Your task to perform on an android device: move an email to a new category in the gmail app Image 0: 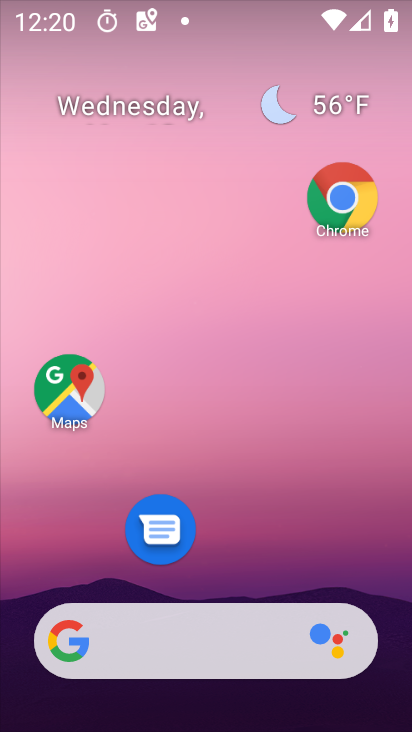
Step 0: drag from (278, 565) to (240, 265)
Your task to perform on an android device: move an email to a new category in the gmail app Image 1: 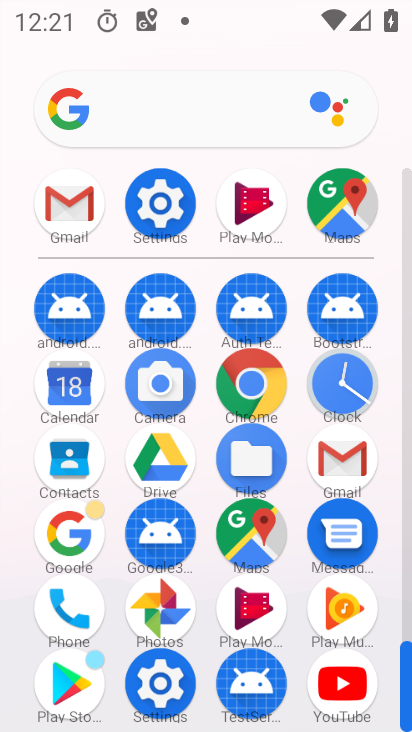
Step 1: click (70, 207)
Your task to perform on an android device: move an email to a new category in the gmail app Image 2: 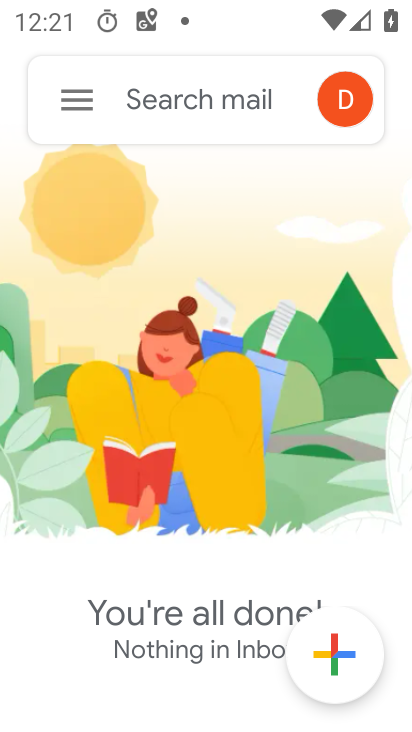
Step 2: task complete